Your task to perform on an android device: Go to calendar. Show me events next week Image 0: 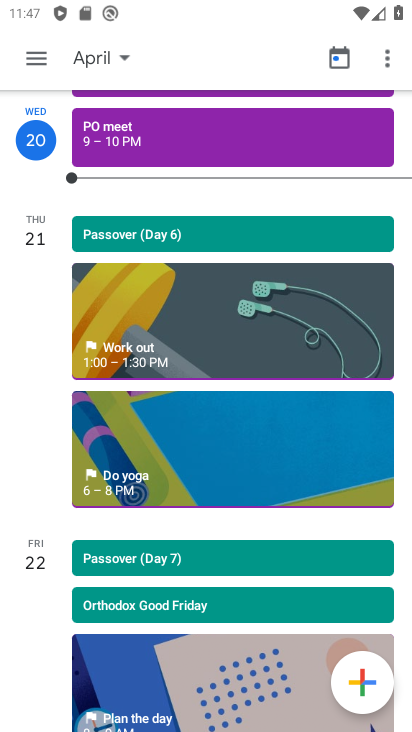
Step 0: press home button
Your task to perform on an android device: Go to calendar. Show me events next week Image 1: 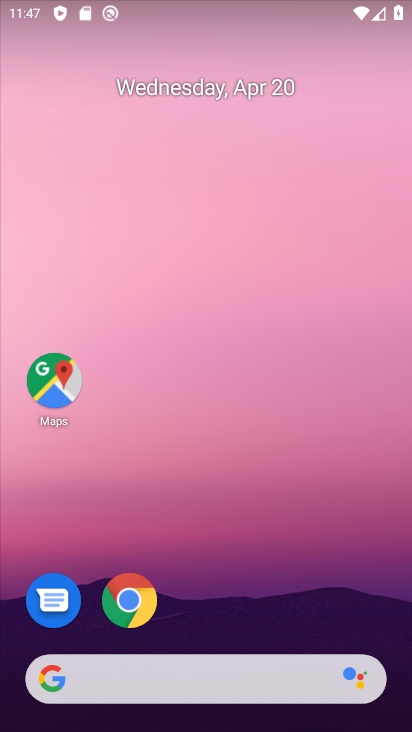
Step 1: drag from (276, 583) to (345, 65)
Your task to perform on an android device: Go to calendar. Show me events next week Image 2: 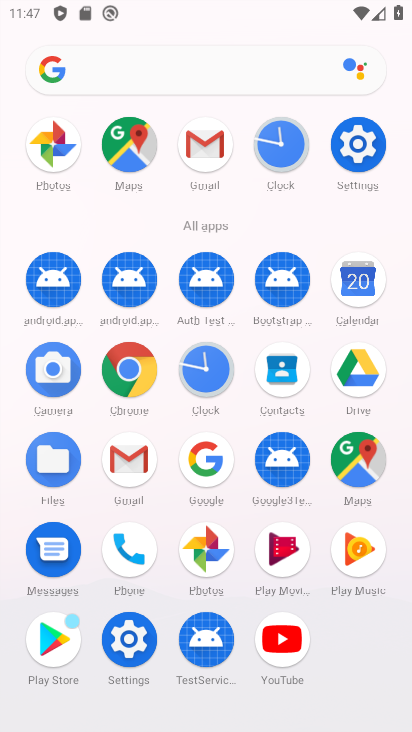
Step 2: click (355, 284)
Your task to perform on an android device: Go to calendar. Show me events next week Image 3: 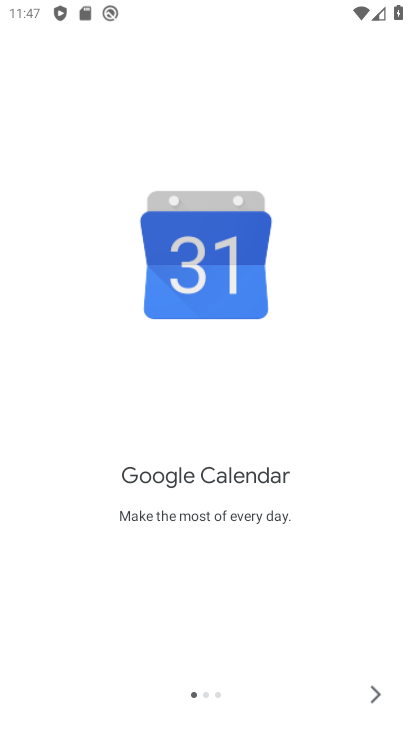
Step 3: click (369, 691)
Your task to perform on an android device: Go to calendar. Show me events next week Image 4: 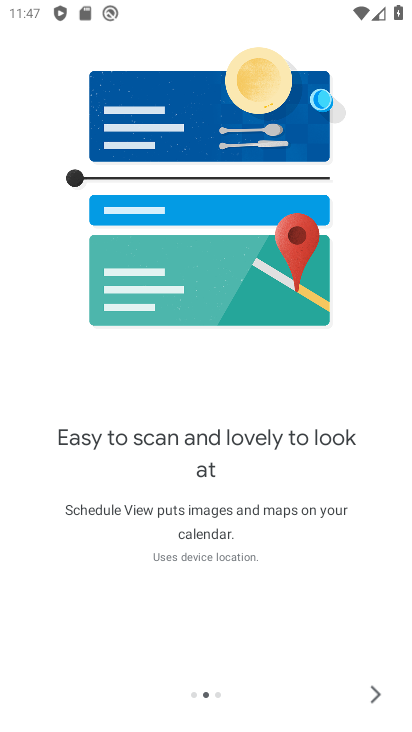
Step 4: click (369, 691)
Your task to perform on an android device: Go to calendar. Show me events next week Image 5: 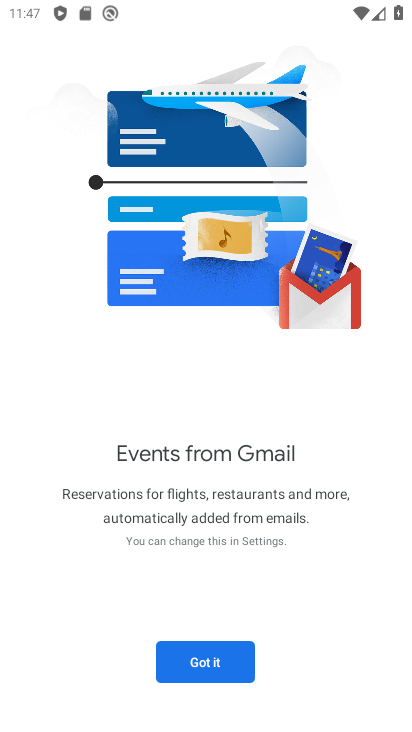
Step 5: click (232, 670)
Your task to perform on an android device: Go to calendar. Show me events next week Image 6: 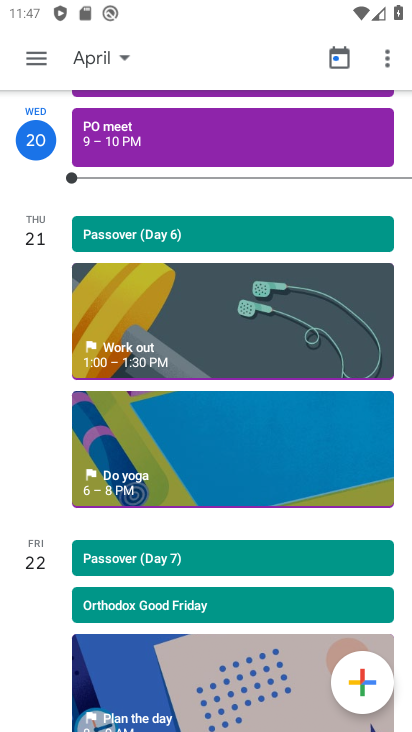
Step 6: click (33, 55)
Your task to perform on an android device: Go to calendar. Show me events next week Image 7: 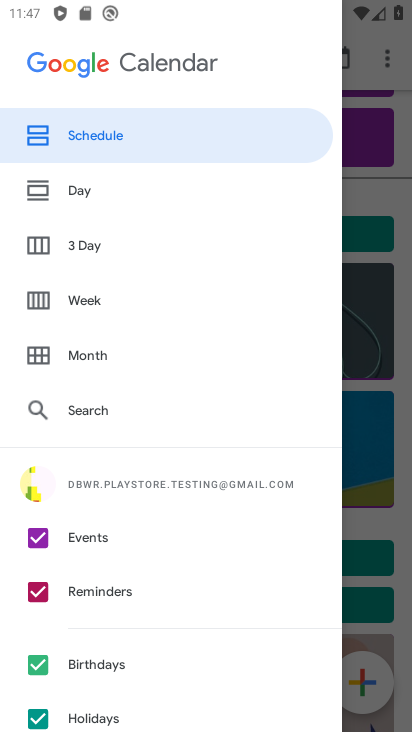
Step 7: click (71, 294)
Your task to perform on an android device: Go to calendar. Show me events next week Image 8: 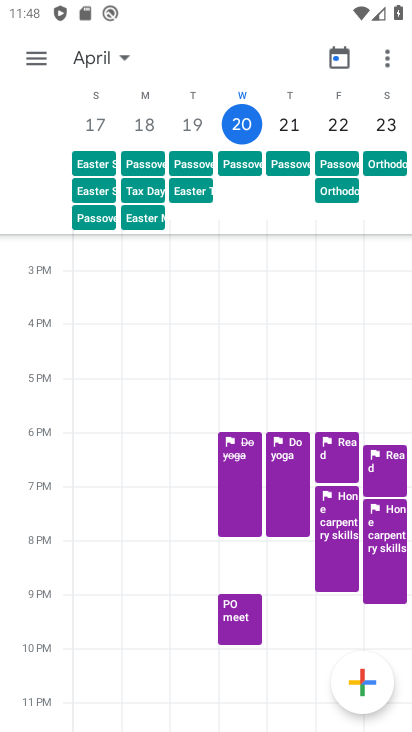
Step 8: task complete